Your task to perform on an android device: open the mobile data screen to see how much data has been used Image 0: 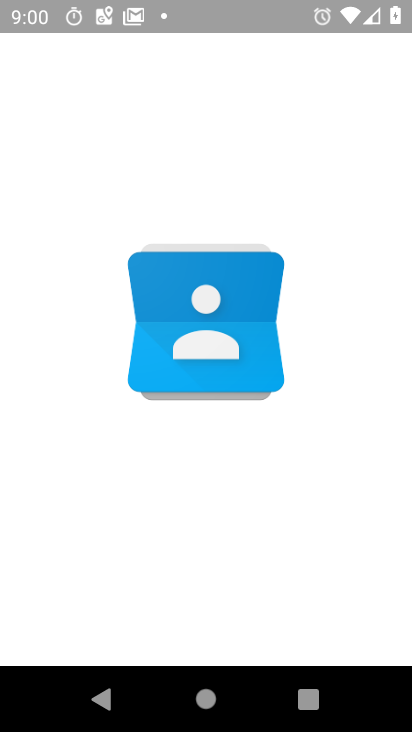
Step 0: drag from (213, 641) to (186, 213)
Your task to perform on an android device: open the mobile data screen to see how much data has been used Image 1: 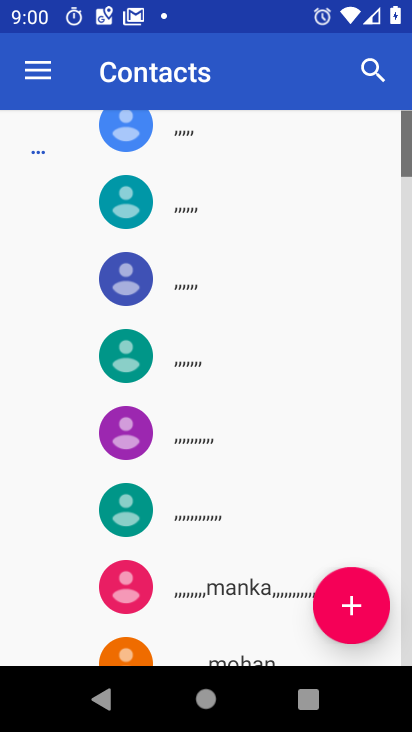
Step 1: press home button
Your task to perform on an android device: open the mobile data screen to see how much data has been used Image 2: 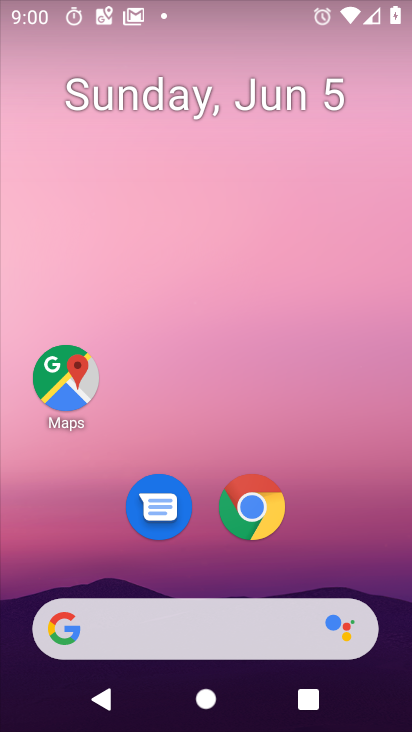
Step 2: drag from (241, 629) to (220, 241)
Your task to perform on an android device: open the mobile data screen to see how much data has been used Image 3: 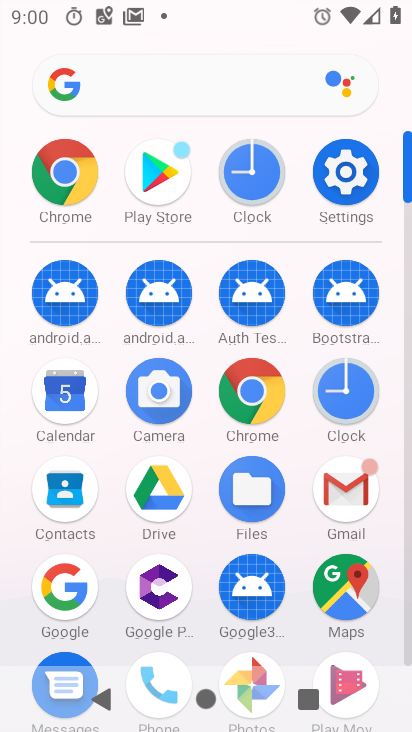
Step 3: click (325, 182)
Your task to perform on an android device: open the mobile data screen to see how much data has been used Image 4: 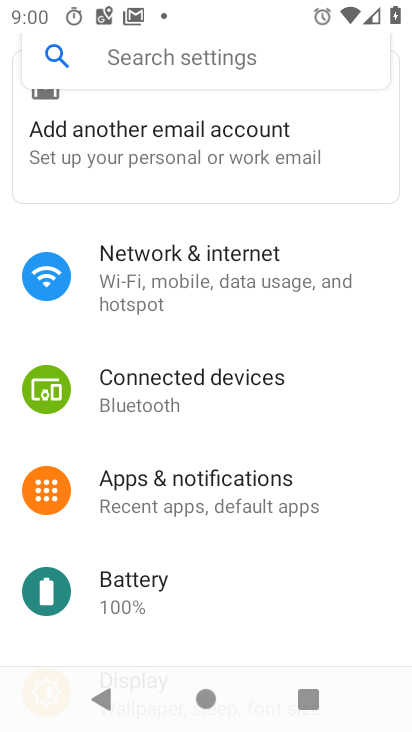
Step 4: click (194, 60)
Your task to perform on an android device: open the mobile data screen to see how much data has been used Image 5: 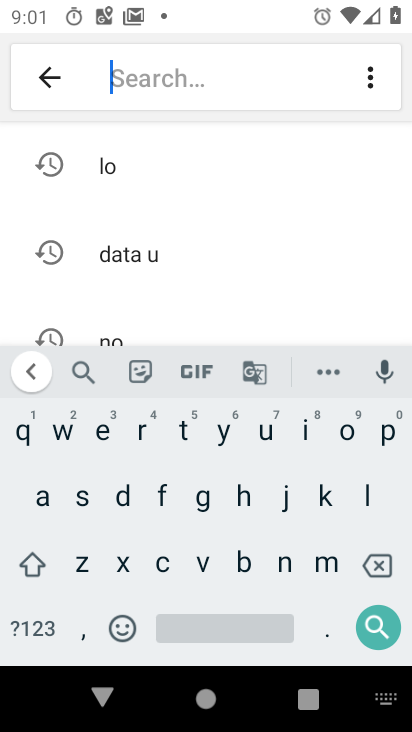
Step 5: click (148, 262)
Your task to perform on an android device: open the mobile data screen to see how much data has been used Image 6: 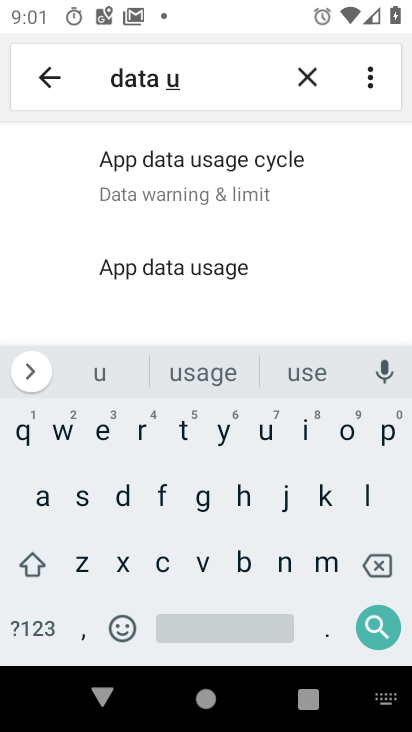
Step 6: click (191, 276)
Your task to perform on an android device: open the mobile data screen to see how much data has been used Image 7: 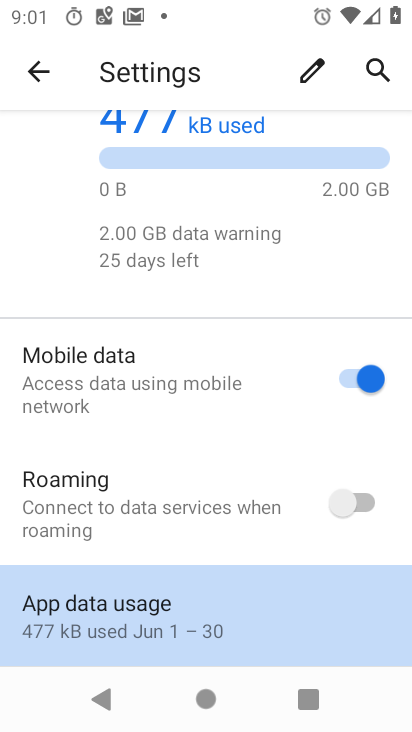
Step 7: click (220, 606)
Your task to perform on an android device: open the mobile data screen to see how much data has been used Image 8: 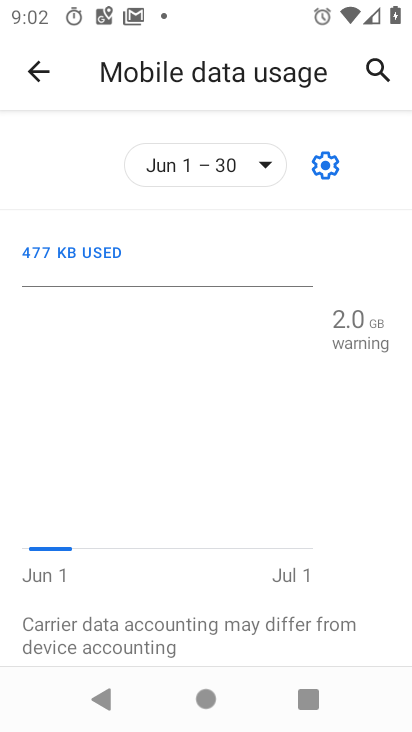
Step 8: task complete